Your task to perform on an android device: Open Maps and search for coffee Image 0: 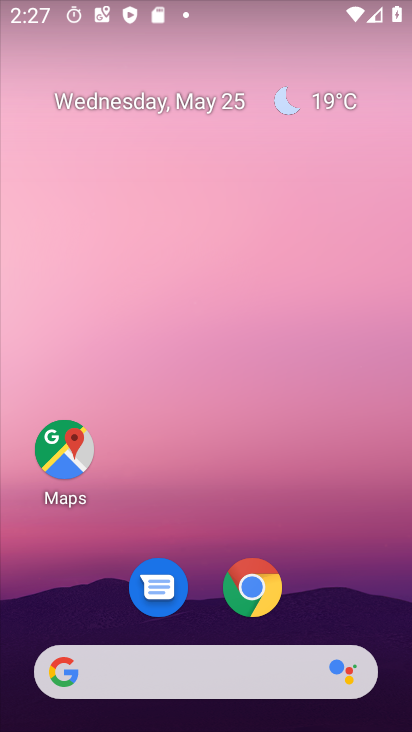
Step 0: click (66, 455)
Your task to perform on an android device: Open Maps and search for coffee Image 1: 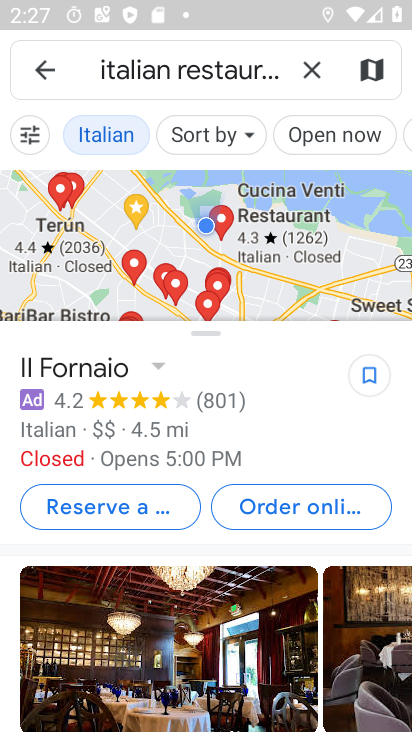
Step 1: click (308, 67)
Your task to perform on an android device: Open Maps and search for coffee Image 2: 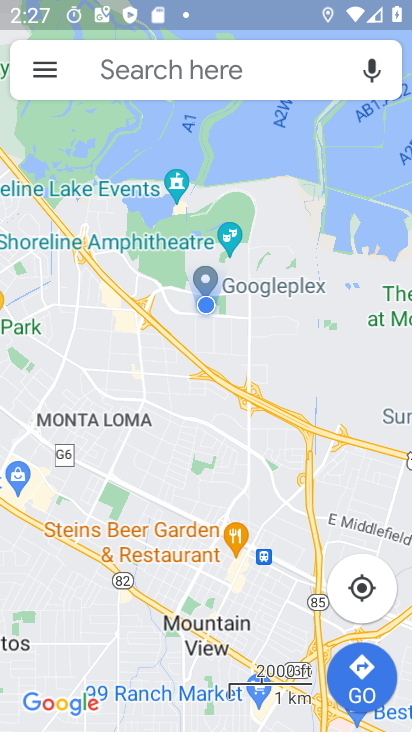
Step 2: click (184, 70)
Your task to perform on an android device: Open Maps and search for coffee Image 3: 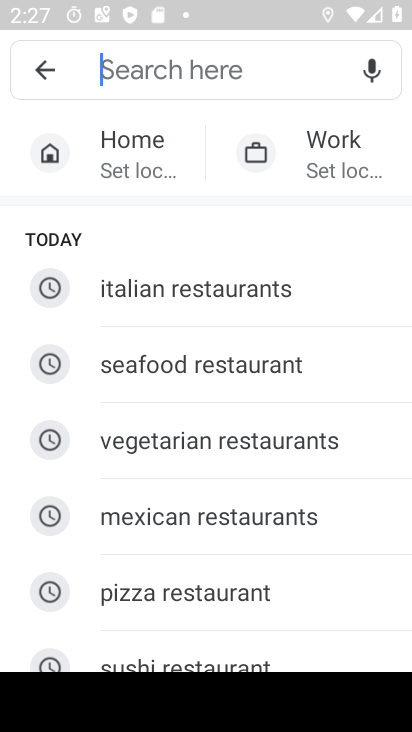
Step 3: type "coffee"
Your task to perform on an android device: Open Maps and search for coffee Image 4: 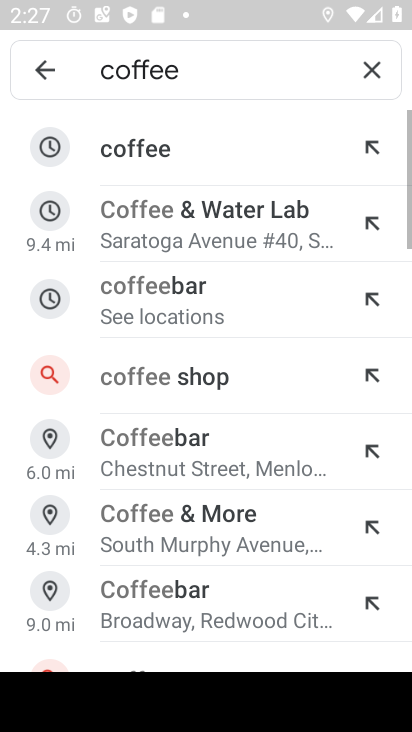
Step 4: click (178, 153)
Your task to perform on an android device: Open Maps and search for coffee Image 5: 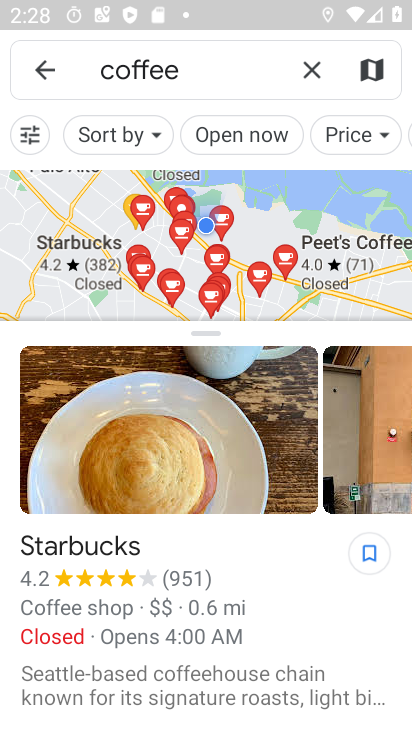
Step 5: task complete